Your task to perform on an android device: turn off location Image 0: 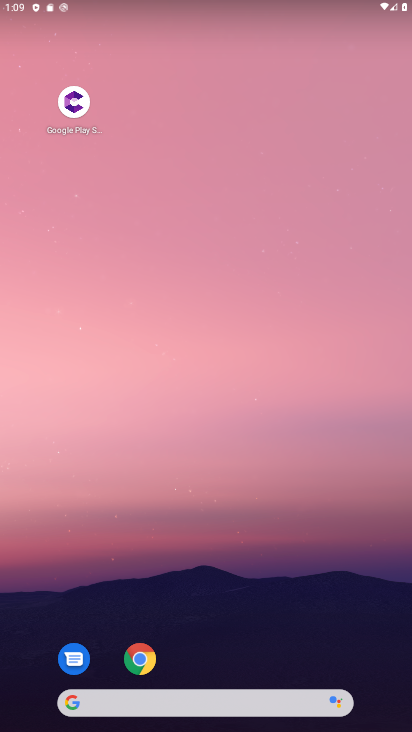
Step 0: drag from (204, 665) to (234, 404)
Your task to perform on an android device: turn off location Image 1: 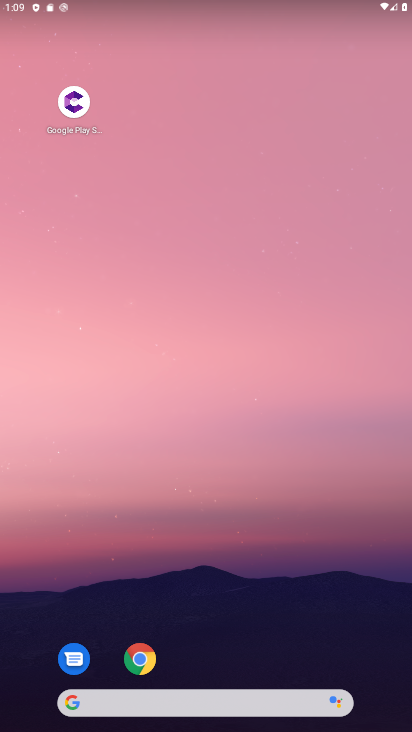
Step 1: drag from (204, 651) to (211, 17)
Your task to perform on an android device: turn off location Image 2: 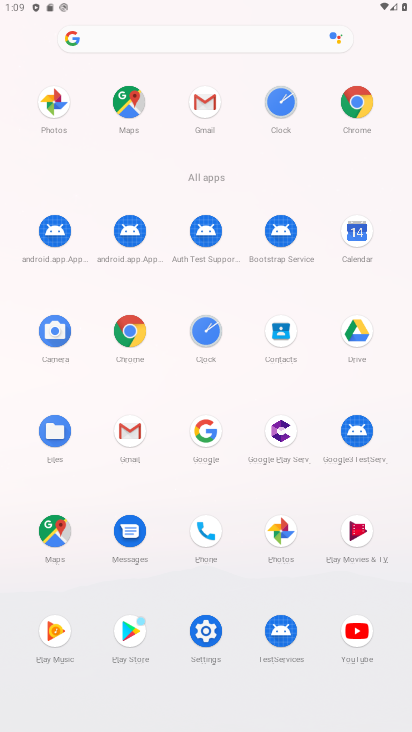
Step 2: click (196, 624)
Your task to perform on an android device: turn off location Image 3: 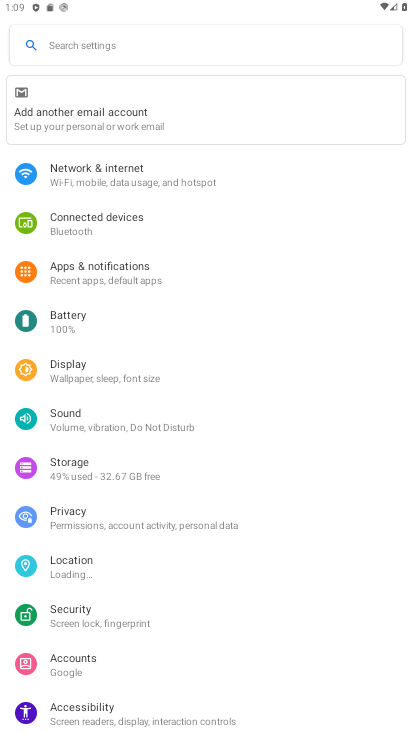
Step 3: click (110, 559)
Your task to perform on an android device: turn off location Image 4: 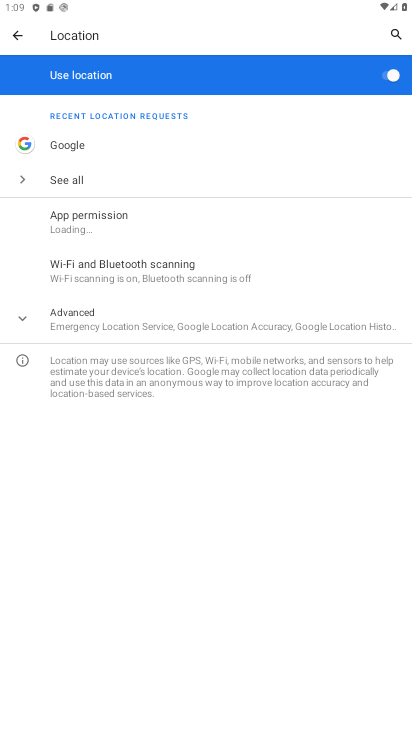
Step 4: click (380, 76)
Your task to perform on an android device: turn off location Image 5: 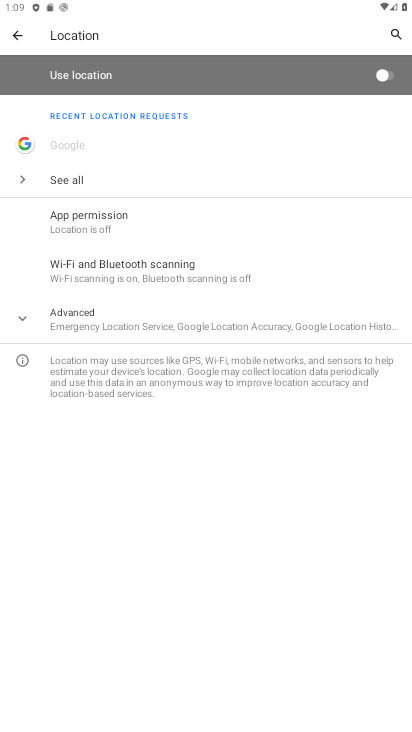
Step 5: task complete